Your task to perform on an android device: delete a single message in the gmail app Image 0: 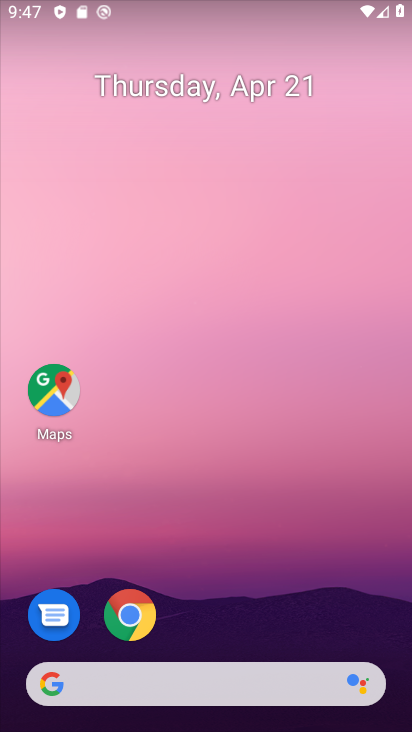
Step 0: drag from (311, 582) to (276, 53)
Your task to perform on an android device: delete a single message in the gmail app Image 1: 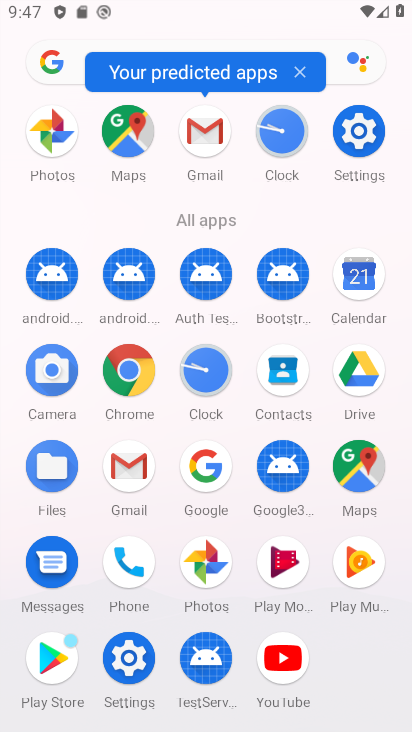
Step 1: click (201, 148)
Your task to perform on an android device: delete a single message in the gmail app Image 2: 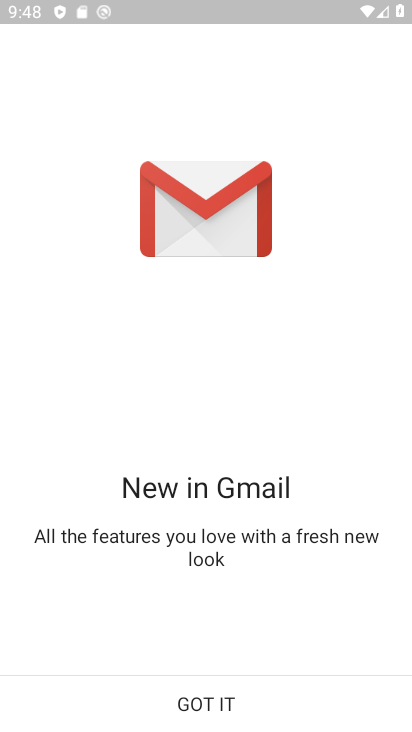
Step 2: click (226, 710)
Your task to perform on an android device: delete a single message in the gmail app Image 3: 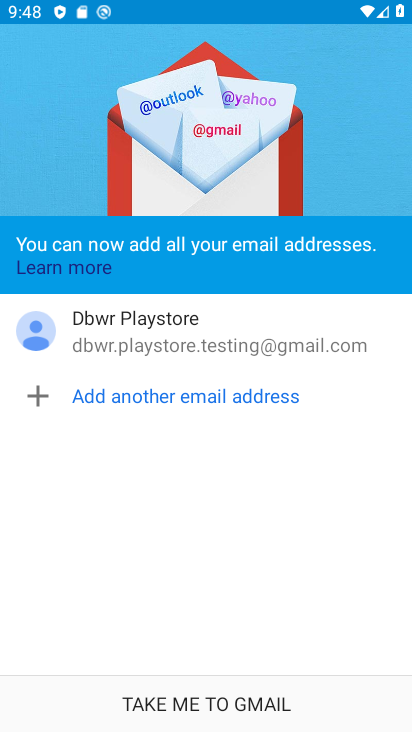
Step 3: click (231, 693)
Your task to perform on an android device: delete a single message in the gmail app Image 4: 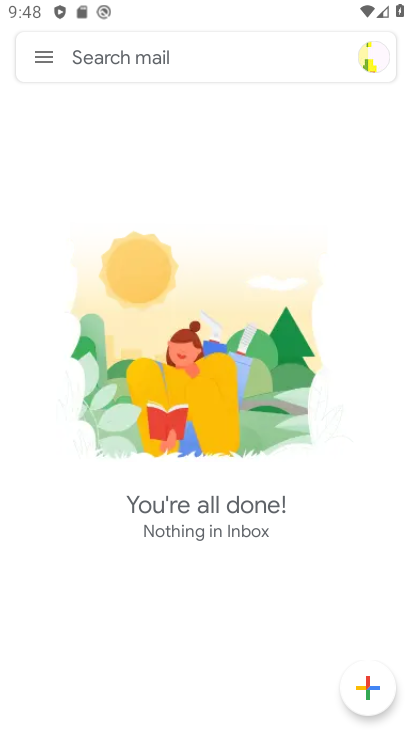
Step 4: click (167, 55)
Your task to perform on an android device: delete a single message in the gmail app Image 5: 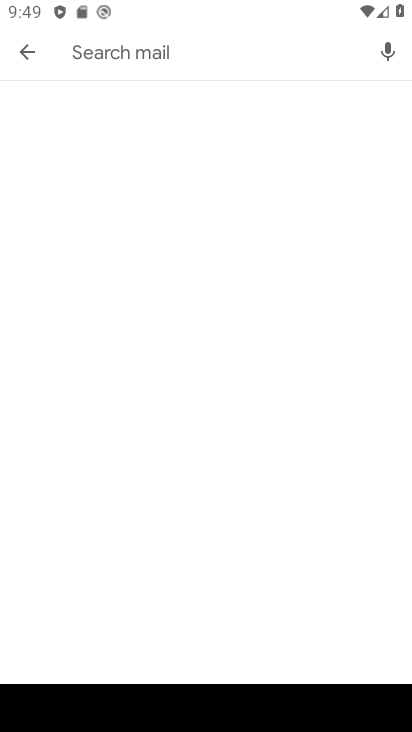
Step 5: click (29, 53)
Your task to perform on an android device: delete a single message in the gmail app Image 6: 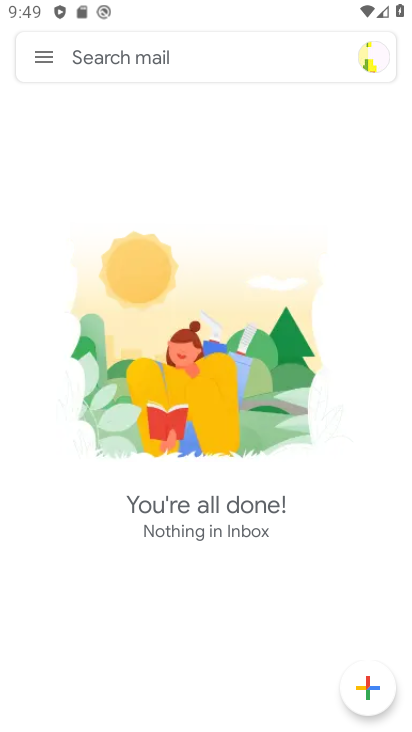
Step 6: click (47, 59)
Your task to perform on an android device: delete a single message in the gmail app Image 7: 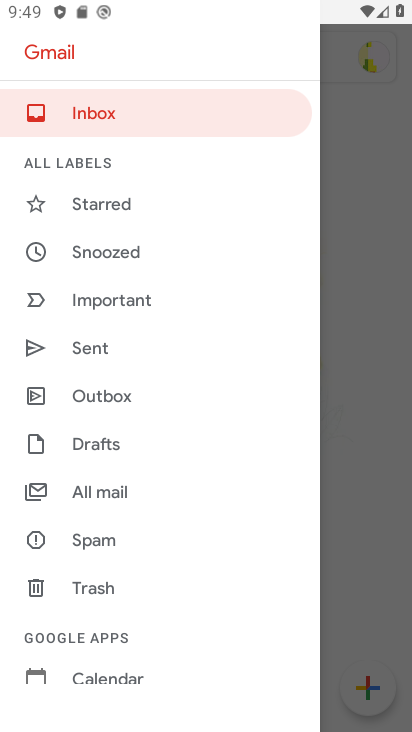
Step 7: click (111, 498)
Your task to perform on an android device: delete a single message in the gmail app Image 8: 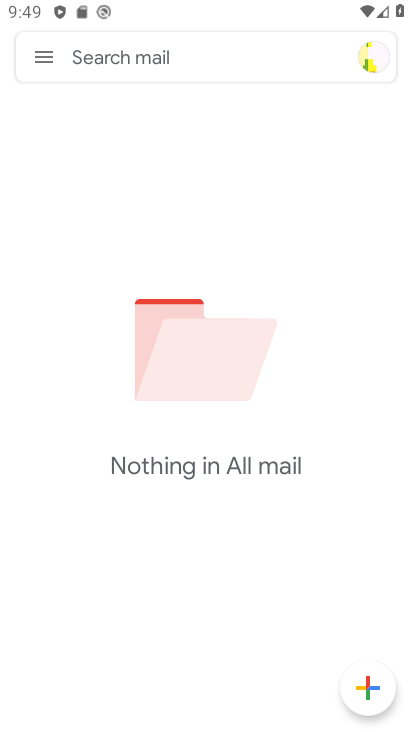
Step 8: task complete